Your task to perform on an android device: Check the news Image 0: 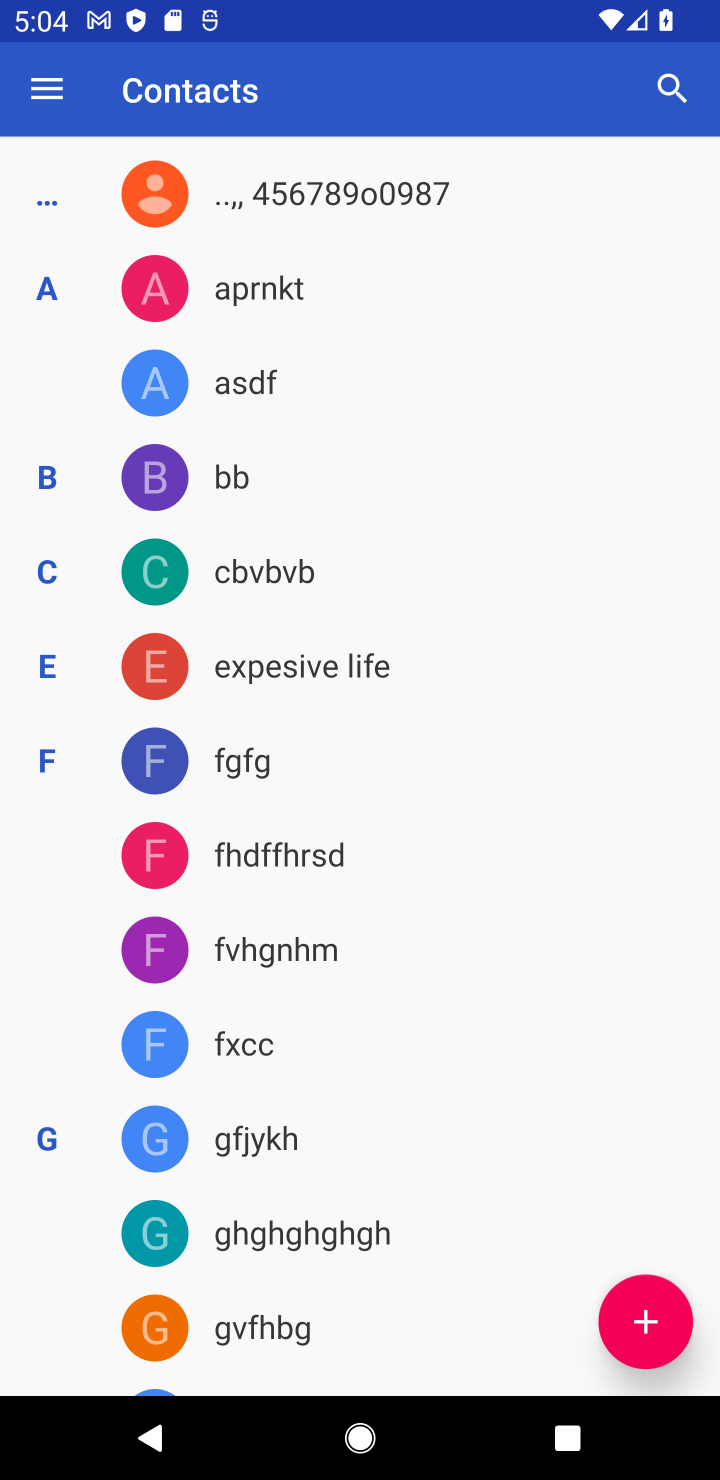
Step 0: press home button
Your task to perform on an android device: Check the news Image 1: 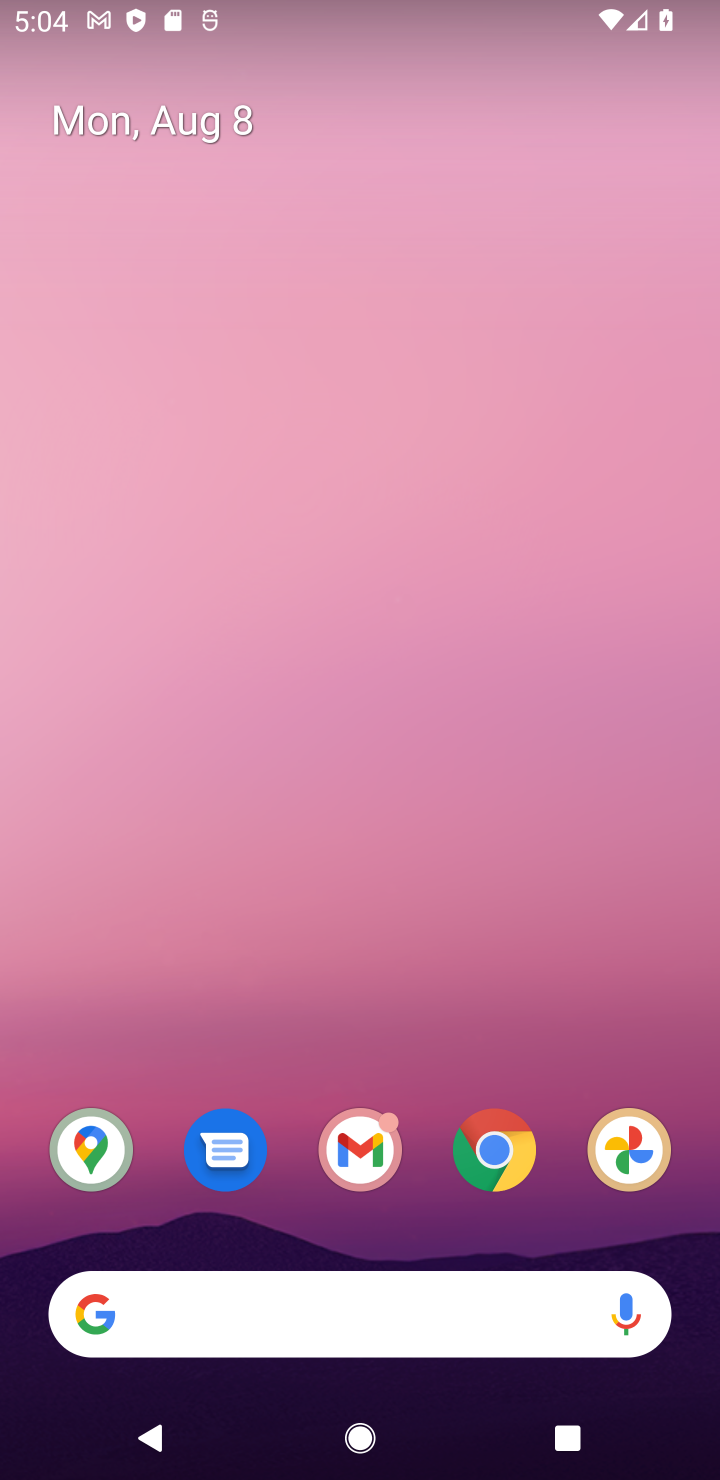
Step 1: click (401, 1315)
Your task to perform on an android device: Check the news Image 2: 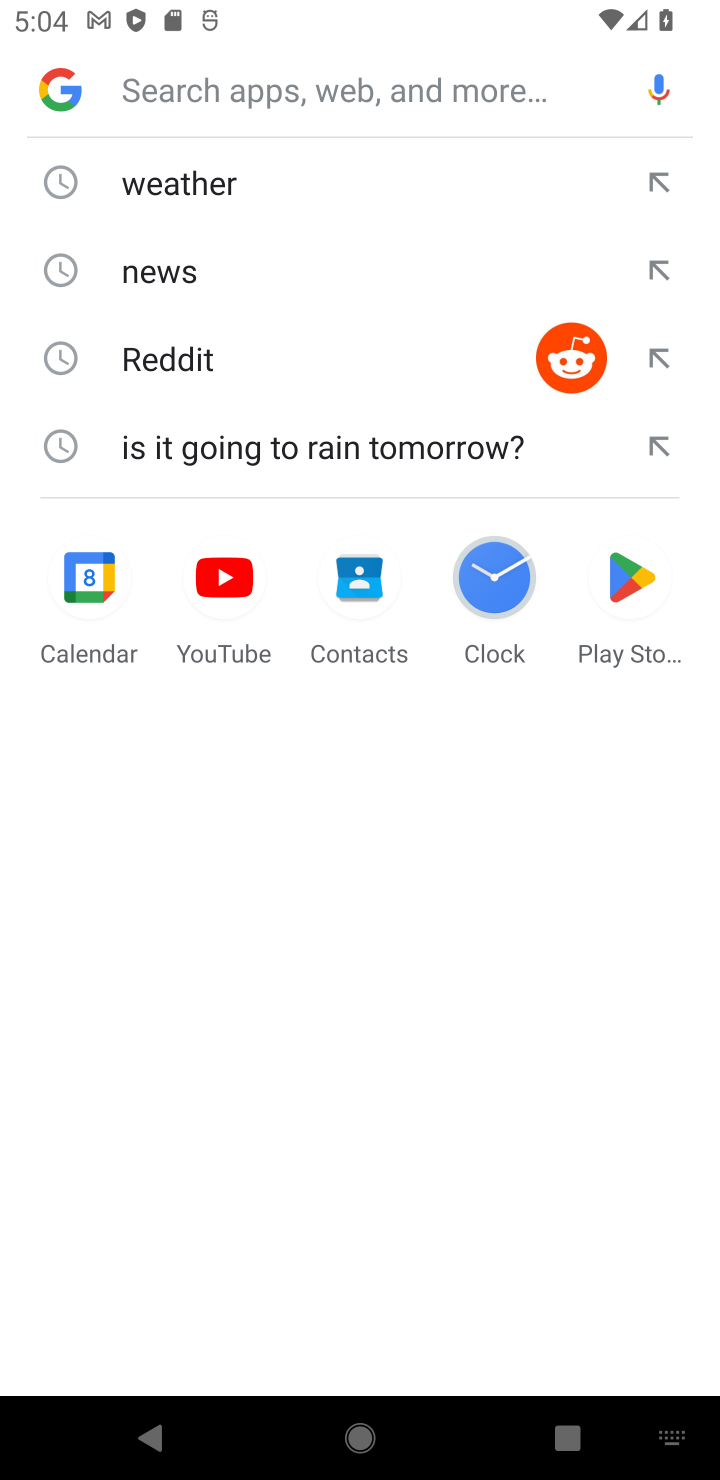
Step 2: task complete